Your task to perform on an android device: What's the weather going to be this weekend? Image 0: 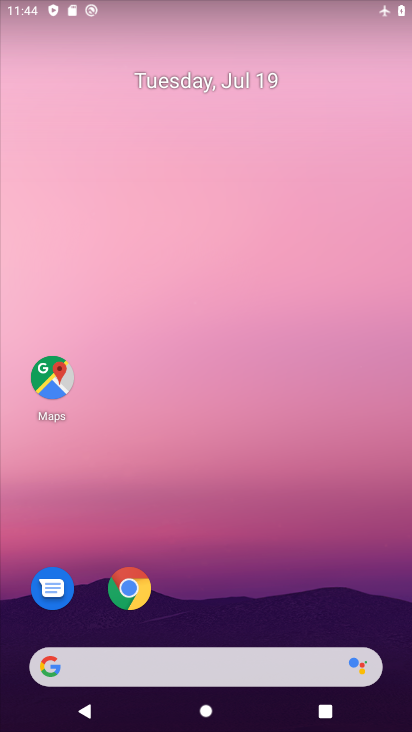
Step 0: drag from (201, 535) to (200, 235)
Your task to perform on an android device: What's the weather going to be this weekend? Image 1: 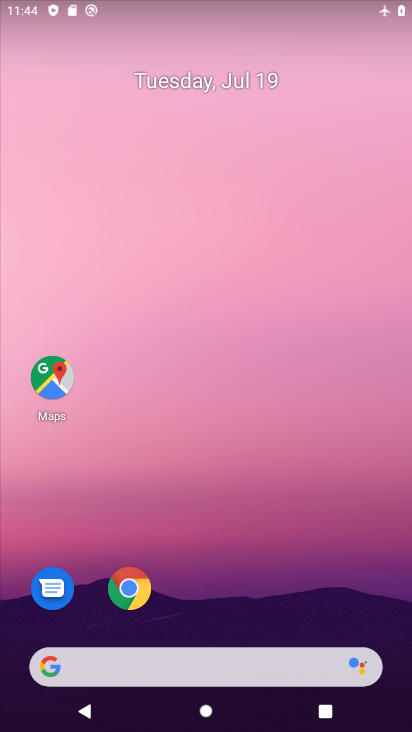
Step 1: drag from (246, 594) to (244, 150)
Your task to perform on an android device: What's the weather going to be this weekend? Image 2: 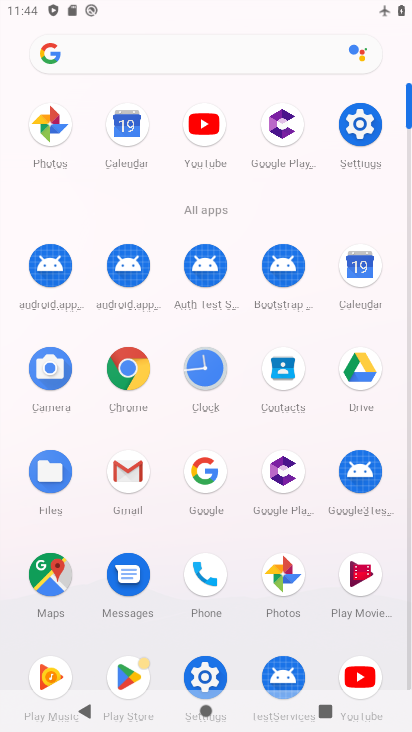
Step 2: click (142, 366)
Your task to perform on an android device: What's the weather going to be this weekend? Image 3: 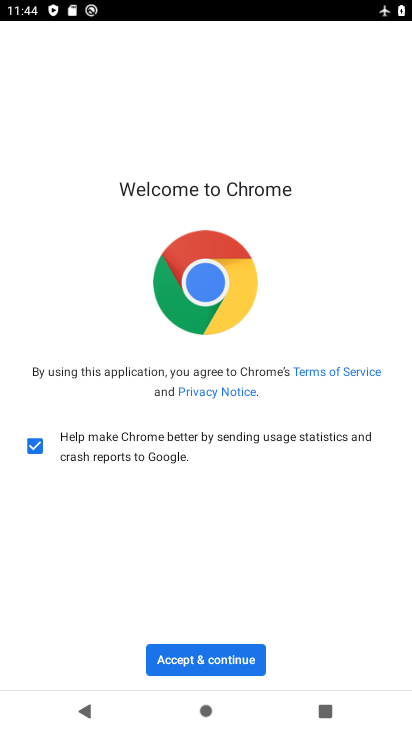
Step 3: click (196, 647)
Your task to perform on an android device: What's the weather going to be this weekend? Image 4: 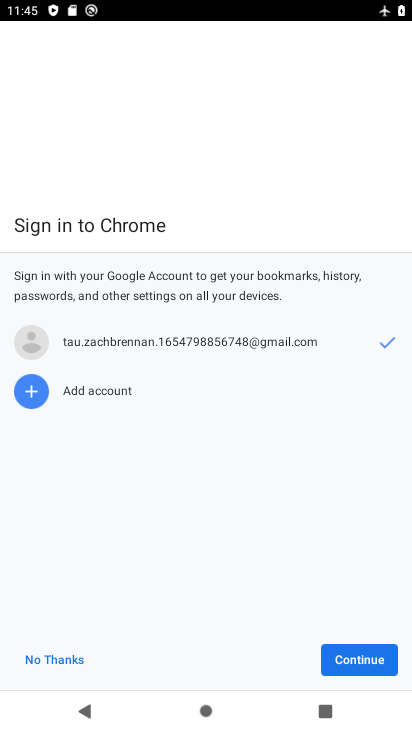
Step 4: click (365, 659)
Your task to perform on an android device: What's the weather going to be this weekend? Image 5: 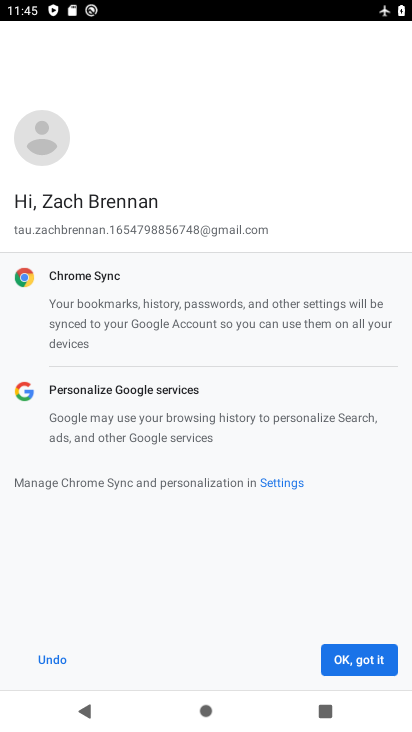
Step 5: click (351, 662)
Your task to perform on an android device: What's the weather going to be this weekend? Image 6: 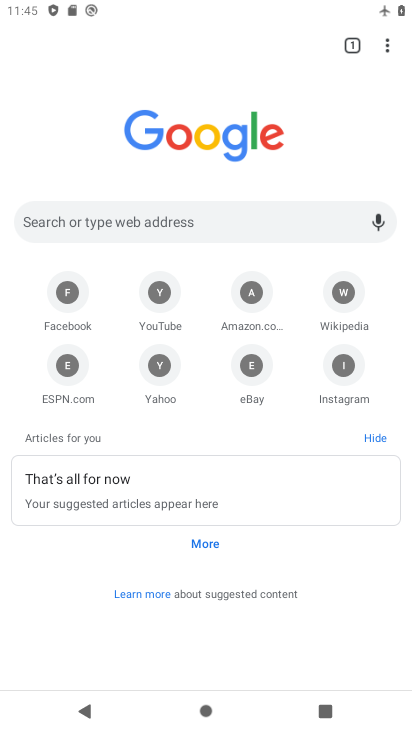
Step 6: click (191, 221)
Your task to perform on an android device: What's the weather going to be this weekend? Image 7: 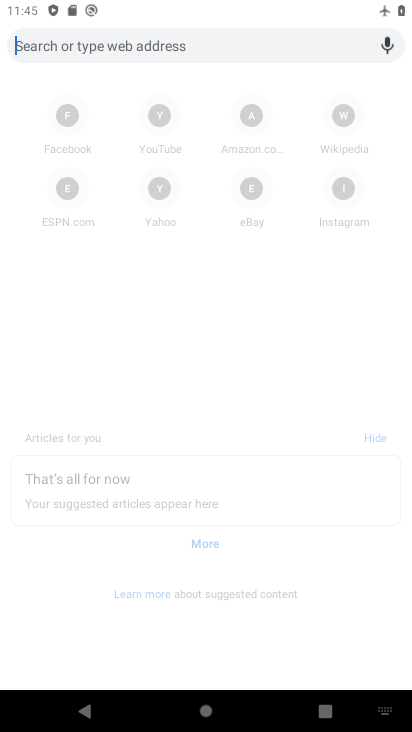
Step 7: type "What's the weather going to be this weekend "
Your task to perform on an android device: What's the weather going to be this weekend? Image 8: 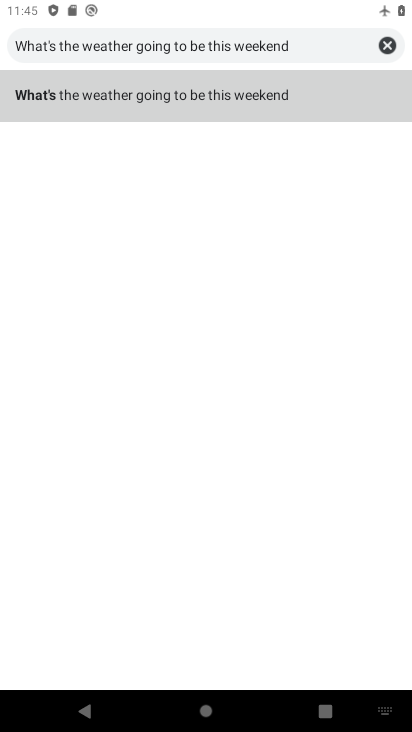
Step 8: click (178, 96)
Your task to perform on an android device: What's the weather going to be this weekend? Image 9: 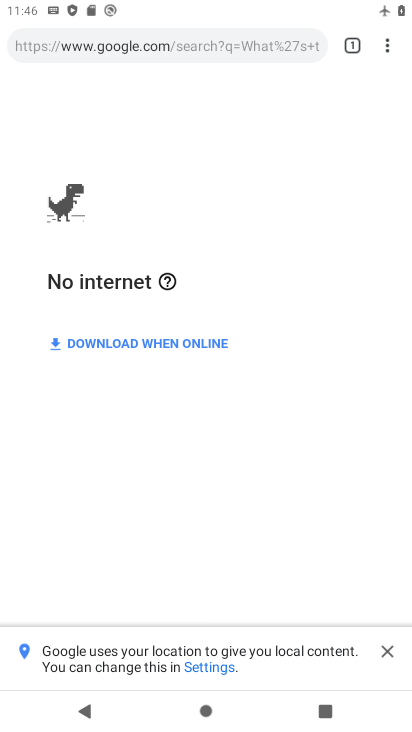
Step 9: task complete